Your task to perform on an android device: check google app version Image 0: 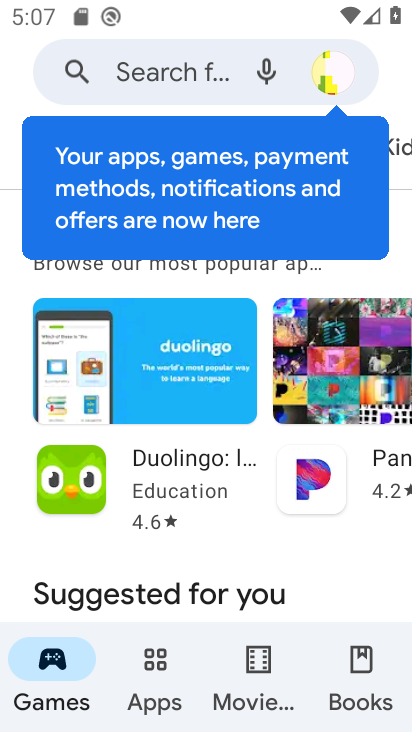
Step 0: press back button
Your task to perform on an android device: check google app version Image 1: 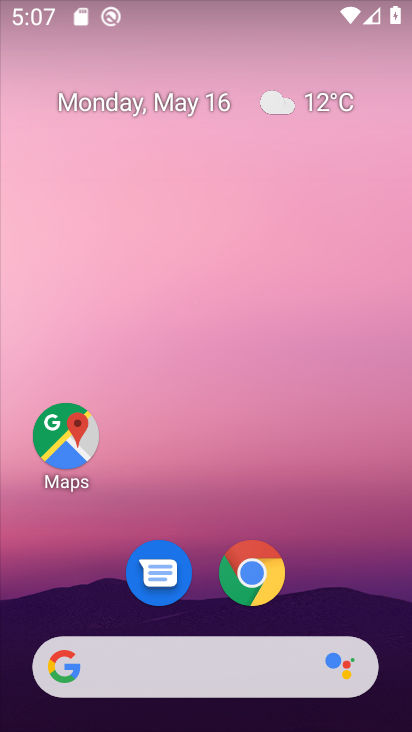
Step 1: drag from (200, 577) to (283, 126)
Your task to perform on an android device: check google app version Image 2: 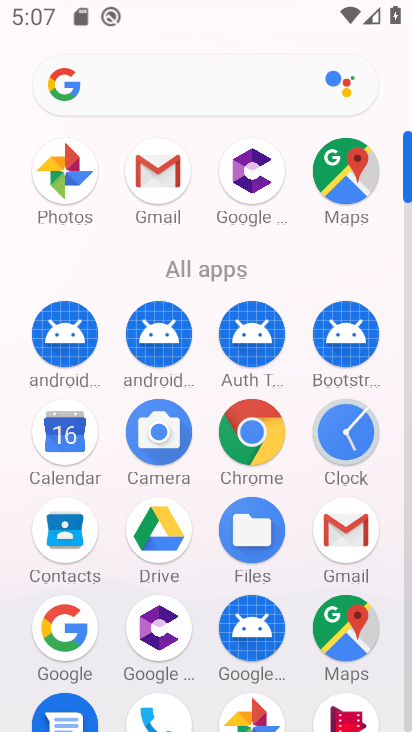
Step 2: click (61, 635)
Your task to perform on an android device: check google app version Image 3: 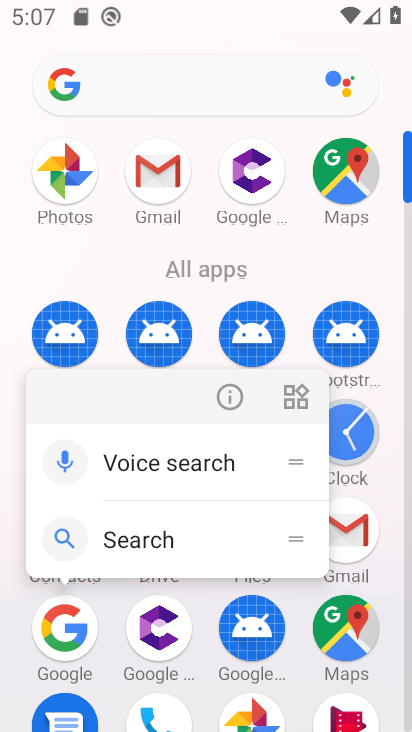
Step 3: click (234, 404)
Your task to perform on an android device: check google app version Image 4: 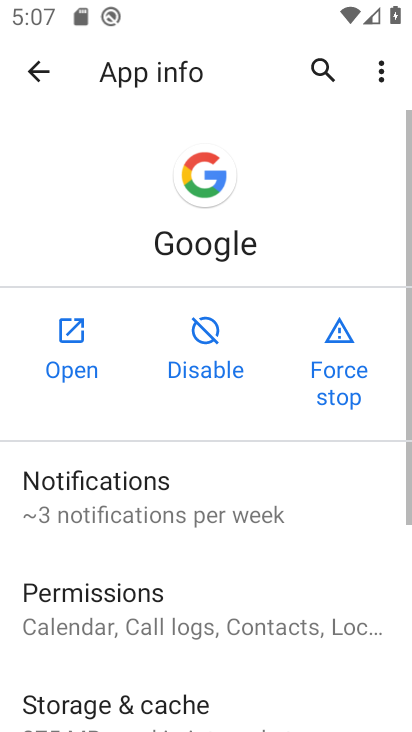
Step 4: drag from (128, 670) to (168, 137)
Your task to perform on an android device: check google app version Image 5: 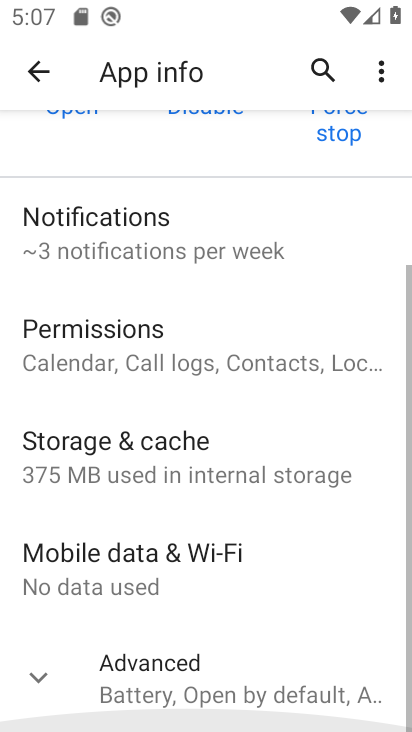
Step 5: drag from (128, 519) to (216, 55)
Your task to perform on an android device: check google app version Image 6: 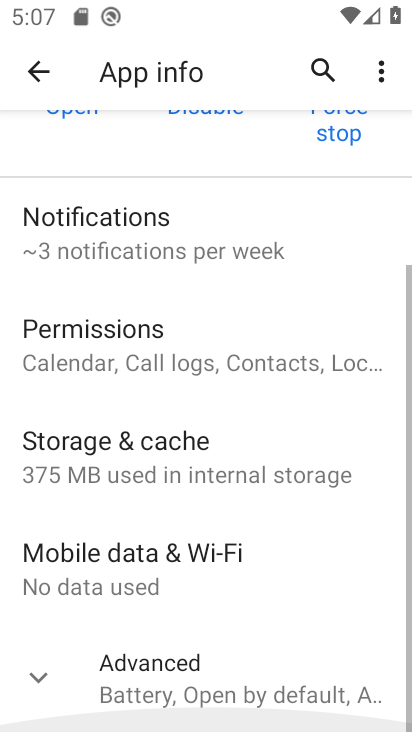
Step 6: click (152, 690)
Your task to perform on an android device: check google app version Image 7: 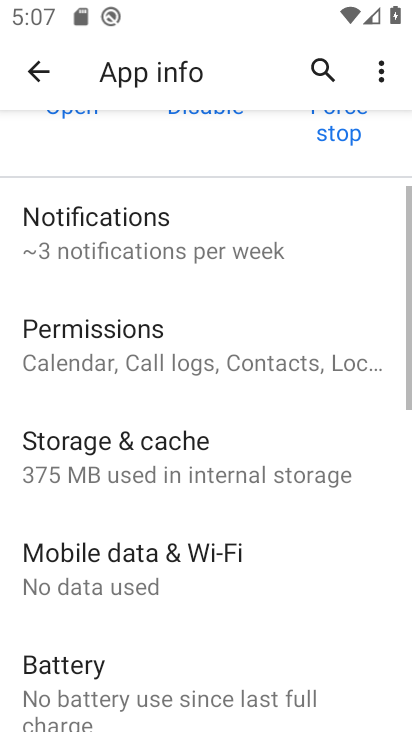
Step 7: task complete